Your task to perform on an android device: Go to Yahoo.com Image 0: 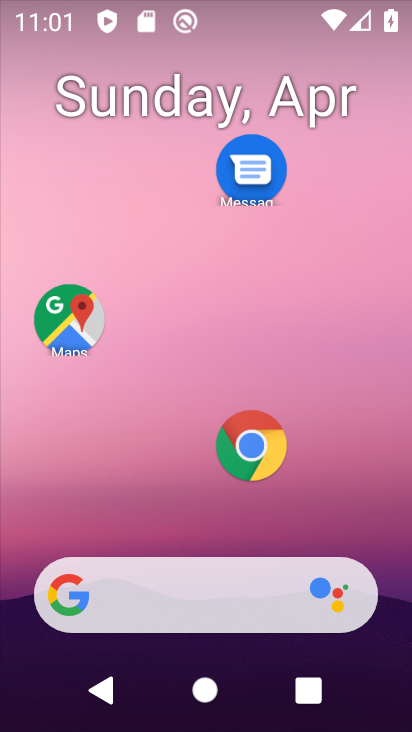
Step 0: press home button
Your task to perform on an android device: Go to Yahoo.com Image 1: 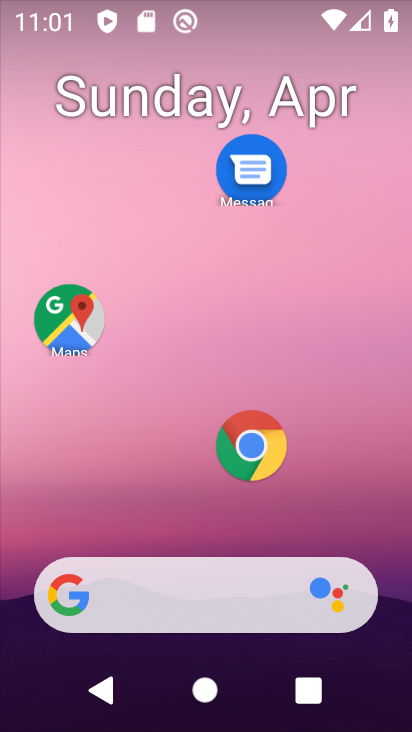
Step 1: drag from (147, 606) to (305, 94)
Your task to perform on an android device: Go to Yahoo.com Image 2: 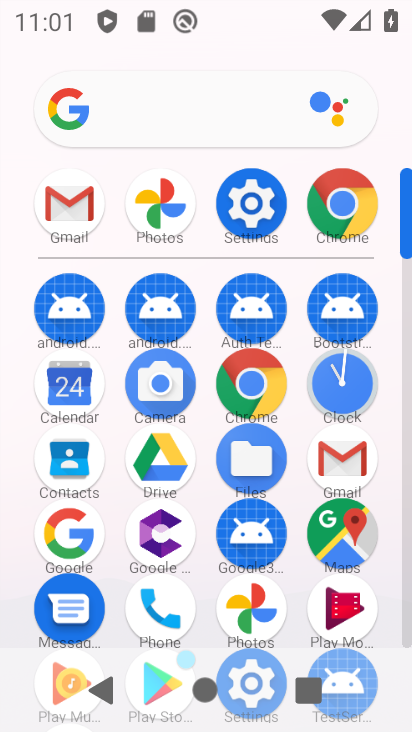
Step 2: click (337, 221)
Your task to perform on an android device: Go to Yahoo.com Image 3: 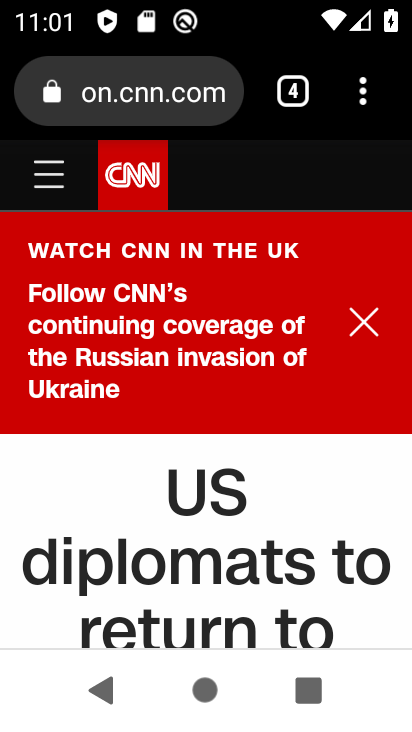
Step 3: drag from (362, 107) to (117, 287)
Your task to perform on an android device: Go to Yahoo.com Image 4: 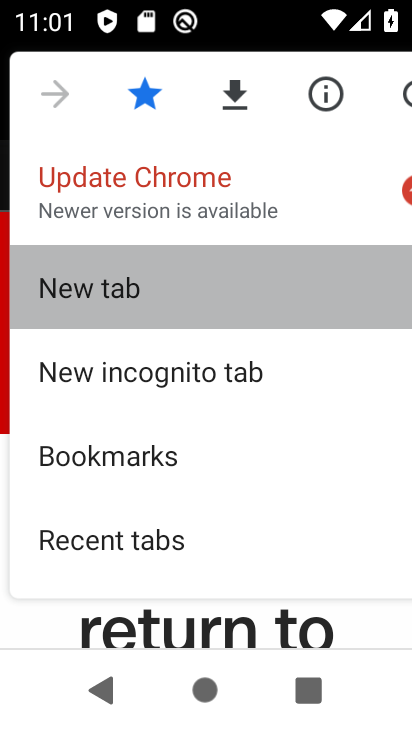
Step 4: click (117, 287)
Your task to perform on an android device: Go to Yahoo.com Image 5: 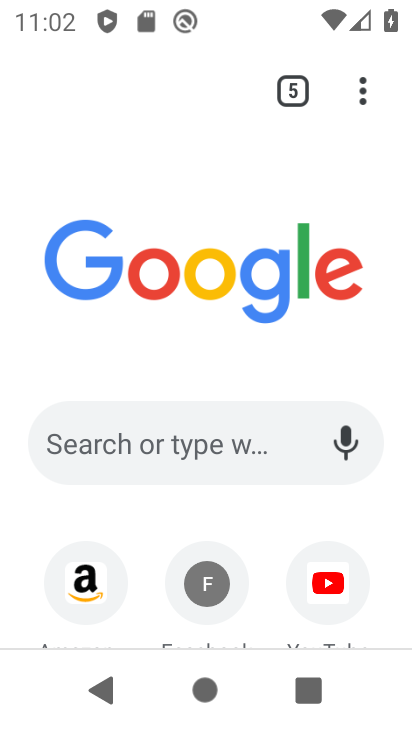
Step 5: drag from (140, 554) to (346, 145)
Your task to perform on an android device: Go to Yahoo.com Image 6: 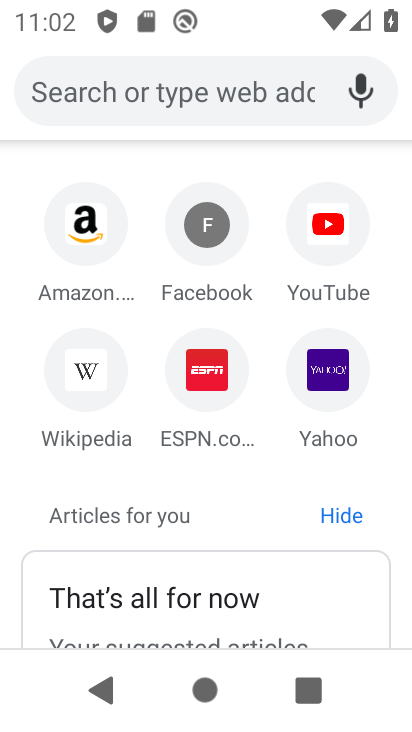
Step 6: click (327, 389)
Your task to perform on an android device: Go to Yahoo.com Image 7: 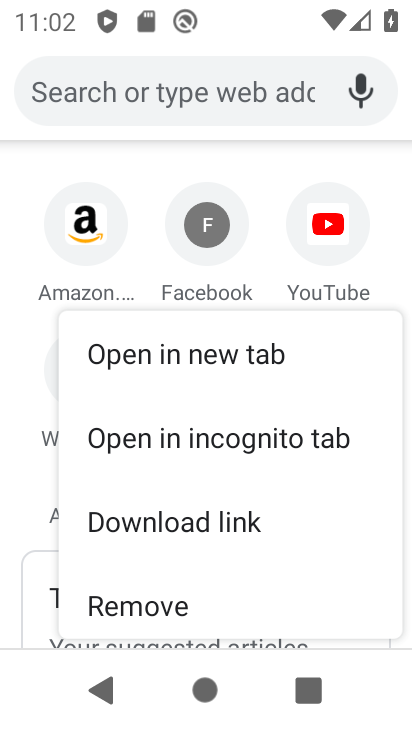
Step 7: drag from (234, 284) to (304, 171)
Your task to perform on an android device: Go to Yahoo.com Image 8: 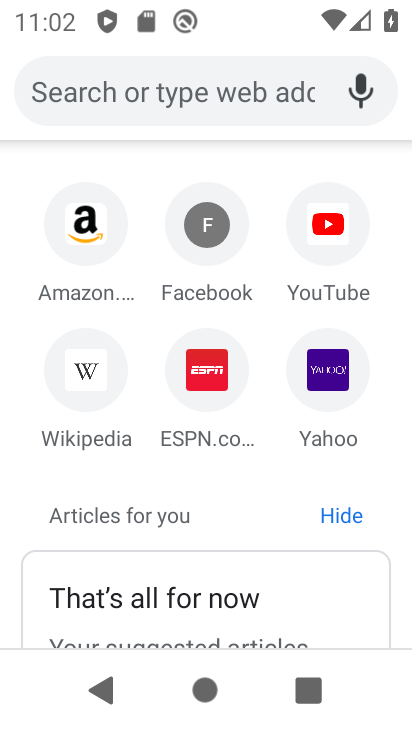
Step 8: click (334, 367)
Your task to perform on an android device: Go to Yahoo.com Image 9: 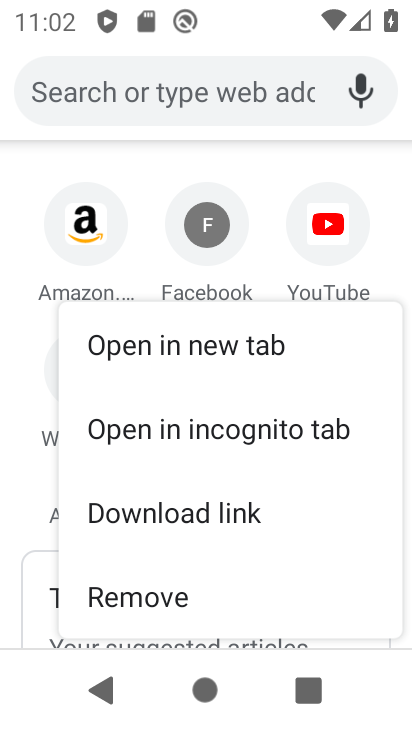
Step 9: drag from (46, 496) to (169, 222)
Your task to perform on an android device: Go to Yahoo.com Image 10: 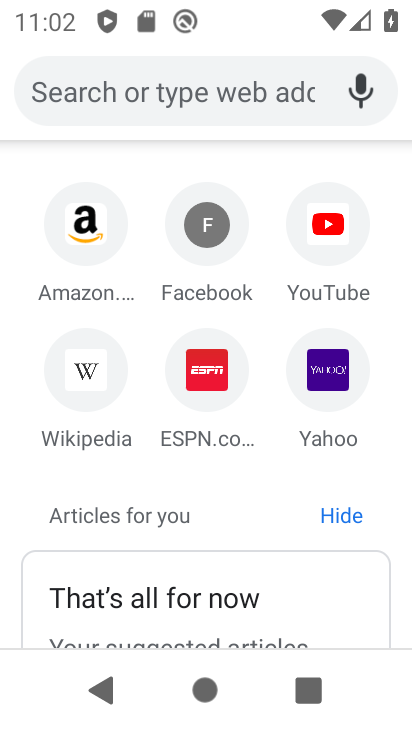
Step 10: click (323, 387)
Your task to perform on an android device: Go to Yahoo.com Image 11: 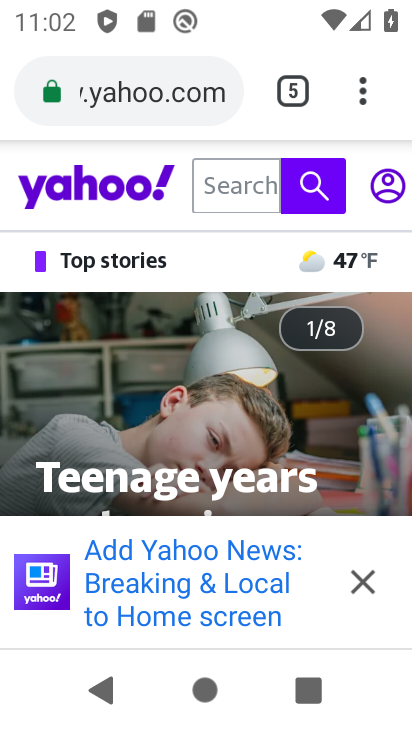
Step 11: task complete